Your task to perform on an android device: change the clock display to show seconds Image 0: 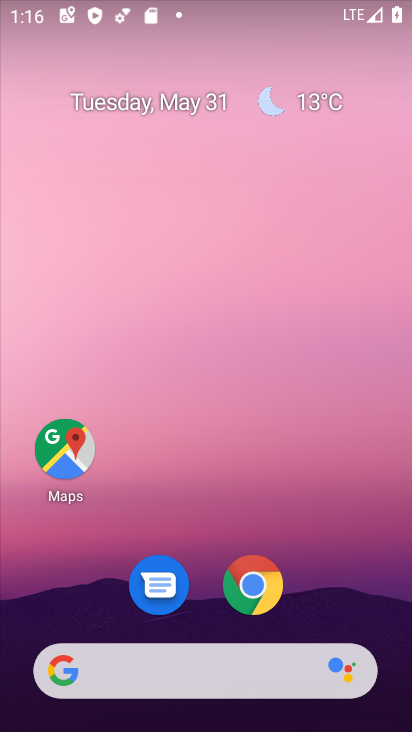
Step 0: drag from (230, 526) to (206, 76)
Your task to perform on an android device: change the clock display to show seconds Image 1: 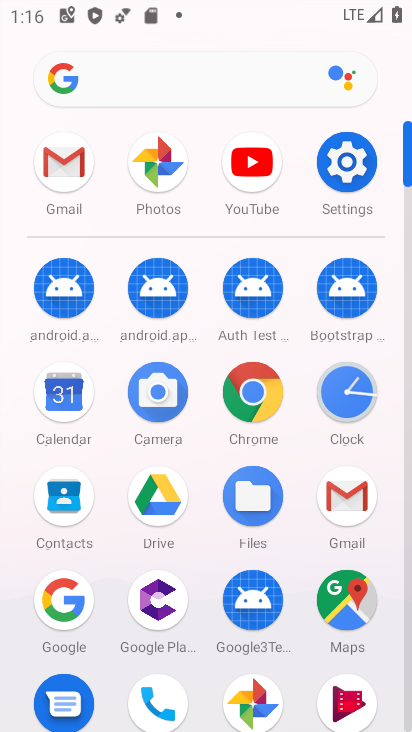
Step 1: click (335, 396)
Your task to perform on an android device: change the clock display to show seconds Image 2: 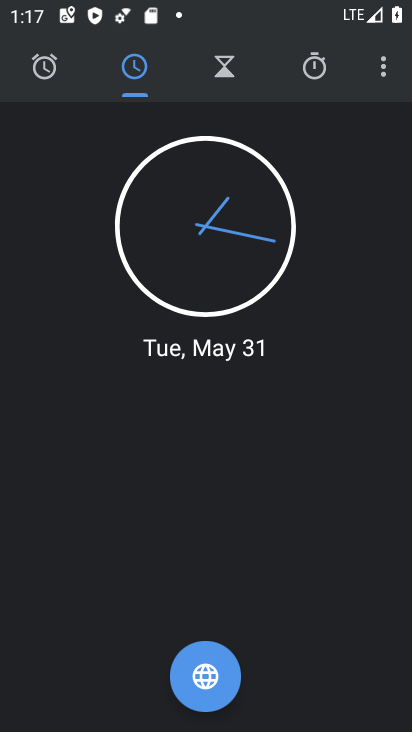
Step 2: click (373, 70)
Your task to perform on an android device: change the clock display to show seconds Image 3: 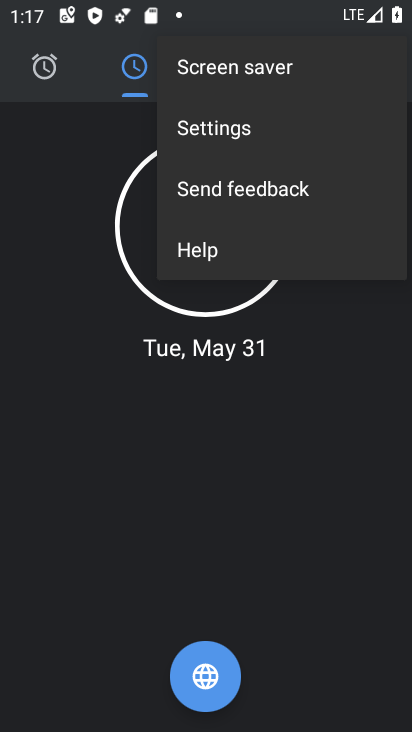
Step 3: click (305, 119)
Your task to perform on an android device: change the clock display to show seconds Image 4: 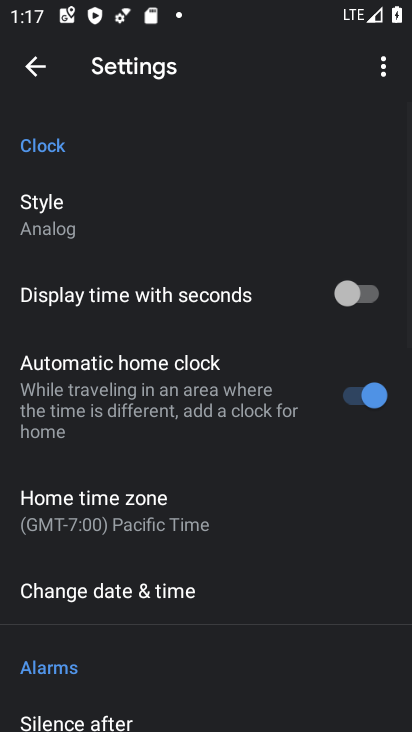
Step 4: click (356, 289)
Your task to perform on an android device: change the clock display to show seconds Image 5: 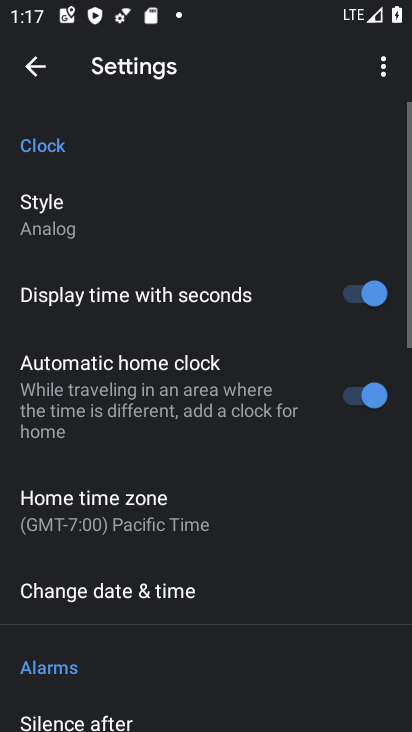
Step 5: click (35, 63)
Your task to perform on an android device: change the clock display to show seconds Image 6: 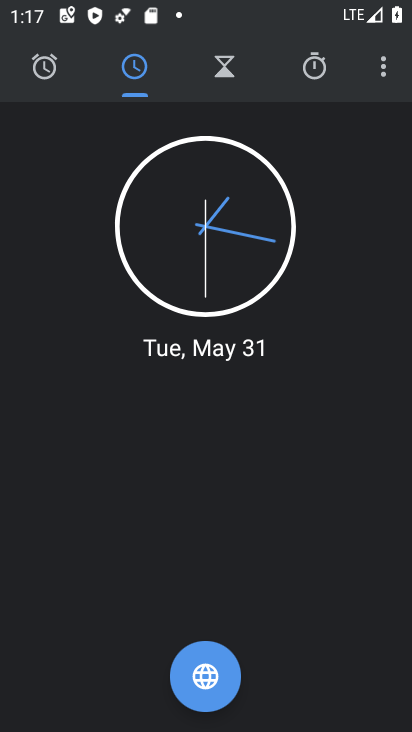
Step 6: task complete